Your task to perform on an android device: Go to Wikipedia Image 0: 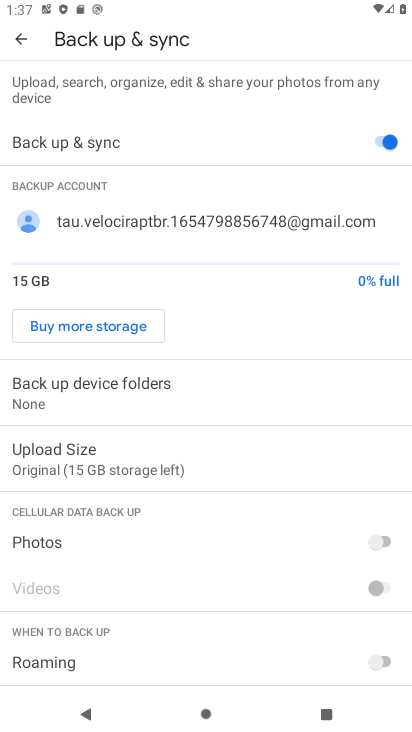
Step 0: press home button
Your task to perform on an android device: Go to Wikipedia Image 1: 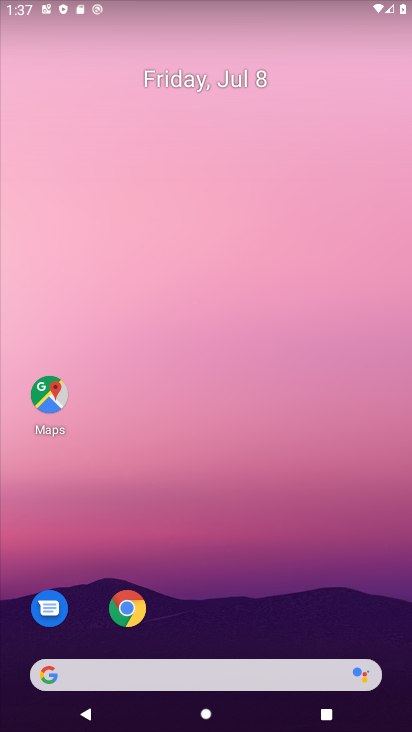
Step 1: drag from (386, 646) to (308, 160)
Your task to perform on an android device: Go to Wikipedia Image 2: 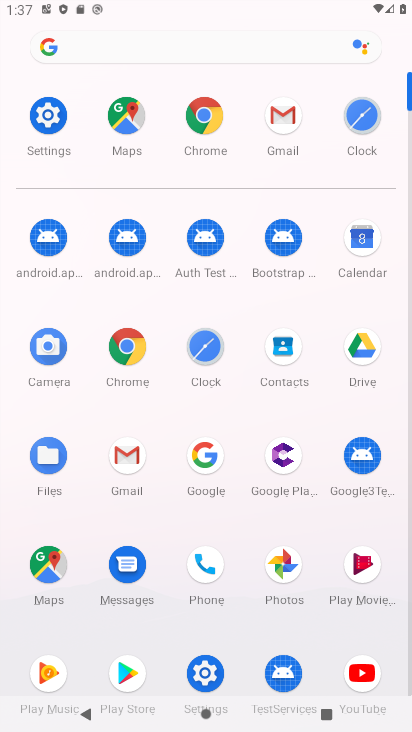
Step 2: click (130, 344)
Your task to perform on an android device: Go to Wikipedia Image 3: 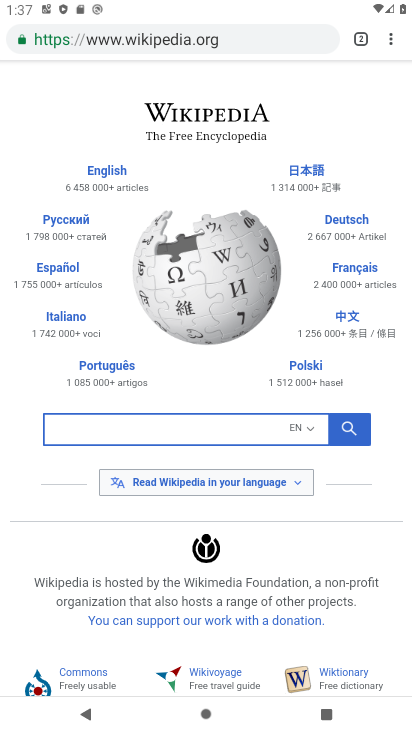
Step 3: task complete